Your task to perform on an android device: turn vacation reply on in the gmail app Image 0: 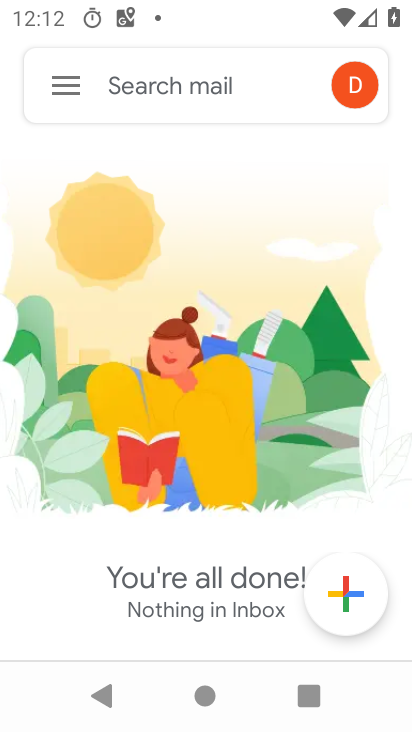
Step 0: click (39, 82)
Your task to perform on an android device: turn vacation reply on in the gmail app Image 1: 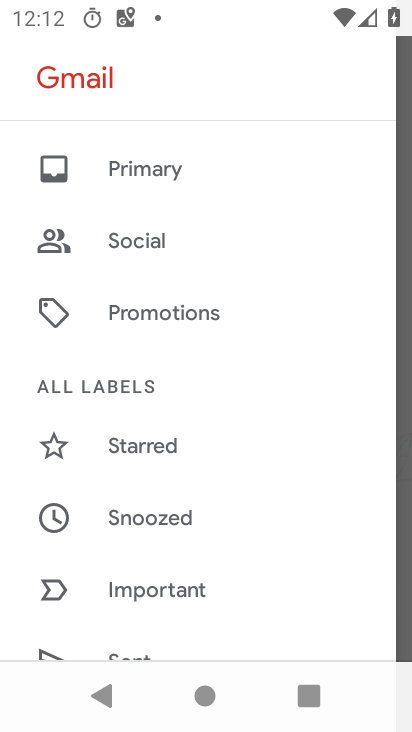
Step 1: drag from (236, 616) to (229, 179)
Your task to perform on an android device: turn vacation reply on in the gmail app Image 2: 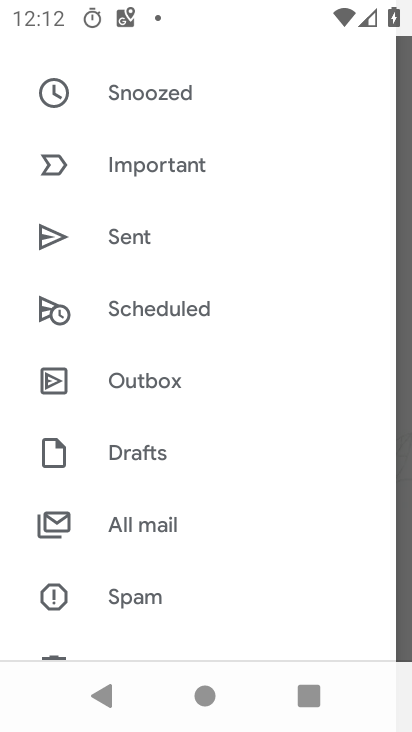
Step 2: drag from (255, 570) to (239, 162)
Your task to perform on an android device: turn vacation reply on in the gmail app Image 3: 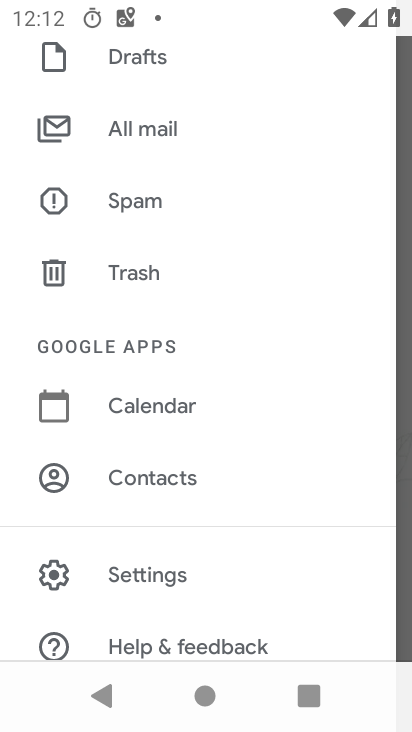
Step 3: click (141, 565)
Your task to perform on an android device: turn vacation reply on in the gmail app Image 4: 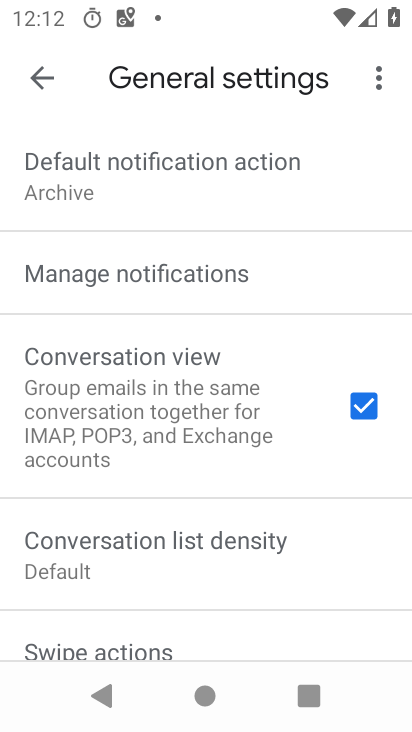
Step 4: drag from (184, 642) to (137, 169)
Your task to perform on an android device: turn vacation reply on in the gmail app Image 5: 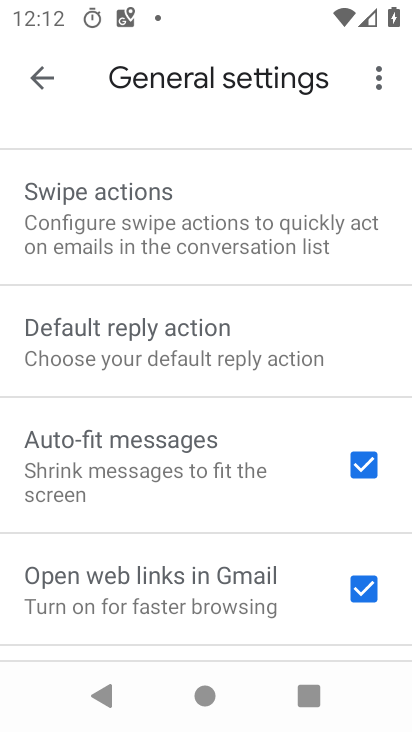
Step 5: click (24, 70)
Your task to perform on an android device: turn vacation reply on in the gmail app Image 6: 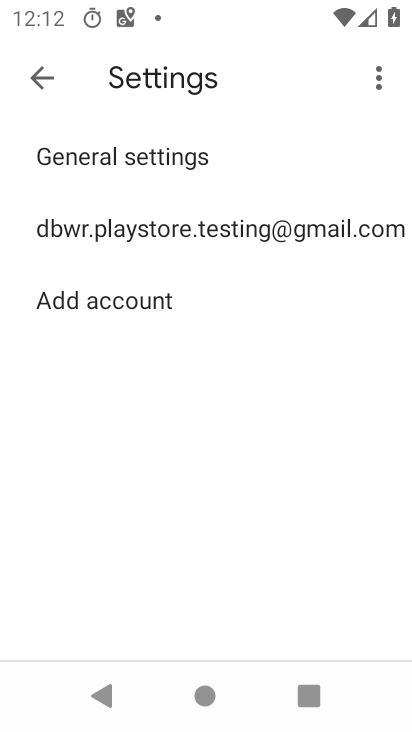
Step 6: click (180, 233)
Your task to perform on an android device: turn vacation reply on in the gmail app Image 7: 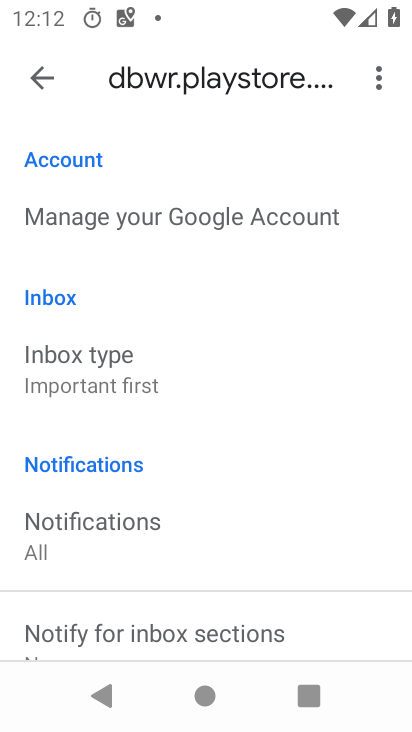
Step 7: drag from (347, 626) to (322, 251)
Your task to perform on an android device: turn vacation reply on in the gmail app Image 8: 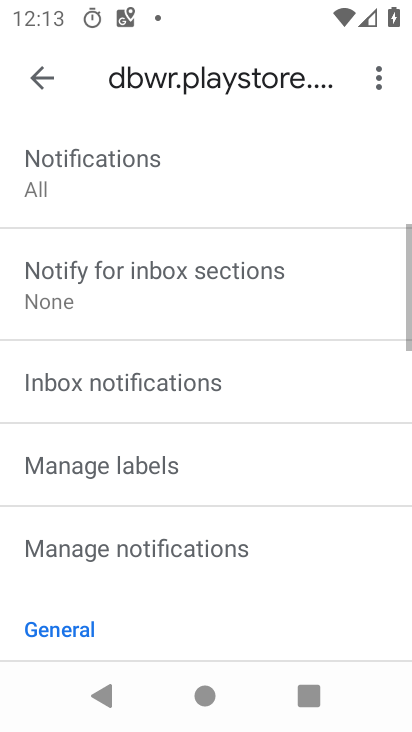
Step 8: drag from (301, 579) to (272, 256)
Your task to perform on an android device: turn vacation reply on in the gmail app Image 9: 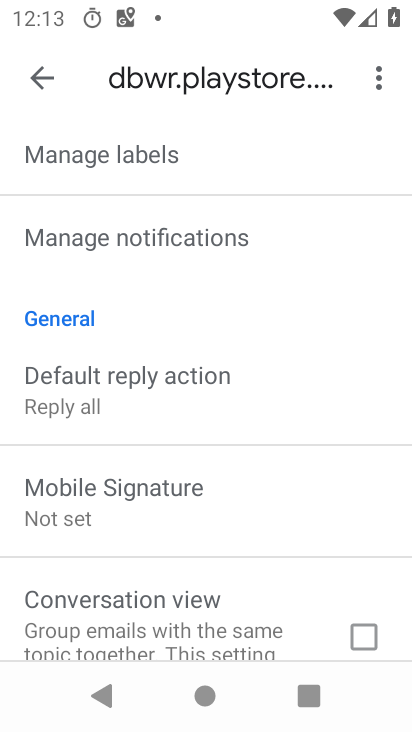
Step 9: drag from (241, 555) to (258, 289)
Your task to perform on an android device: turn vacation reply on in the gmail app Image 10: 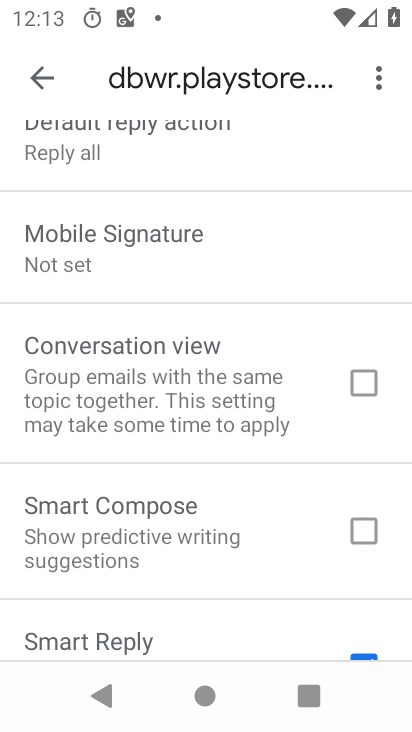
Step 10: drag from (202, 613) to (214, 325)
Your task to perform on an android device: turn vacation reply on in the gmail app Image 11: 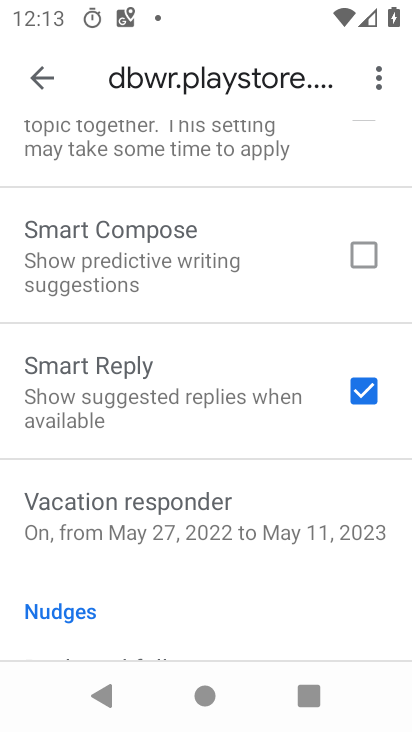
Step 11: click (146, 512)
Your task to perform on an android device: turn vacation reply on in the gmail app Image 12: 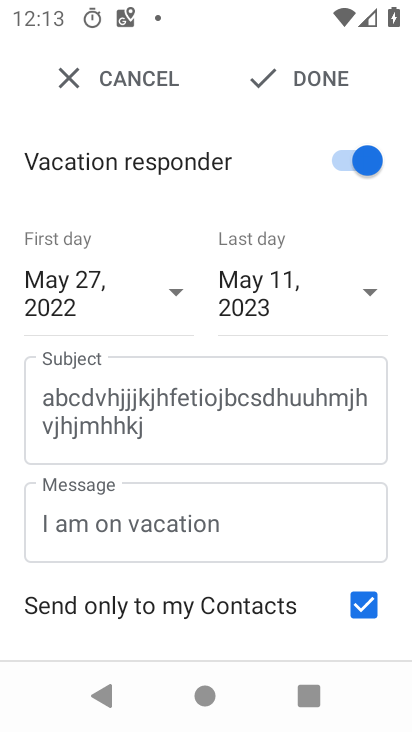
Step 12: task complete